Your task to perform on an android device: Open location settings Image 0: 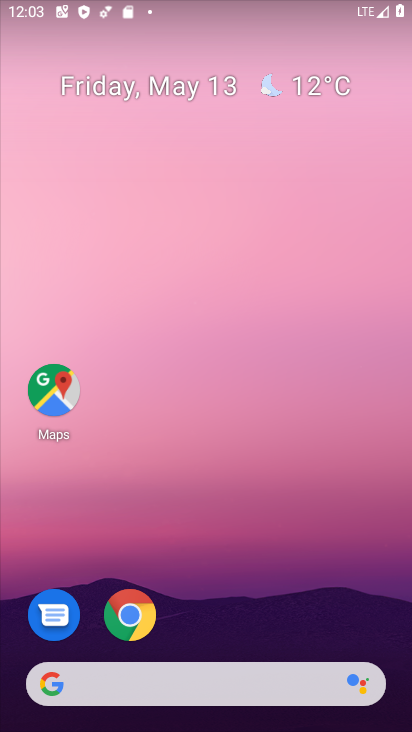
Step 0: drag from (239, 620) to (227, 222)
Your task to perform on an android device: Open location settings Image 1: 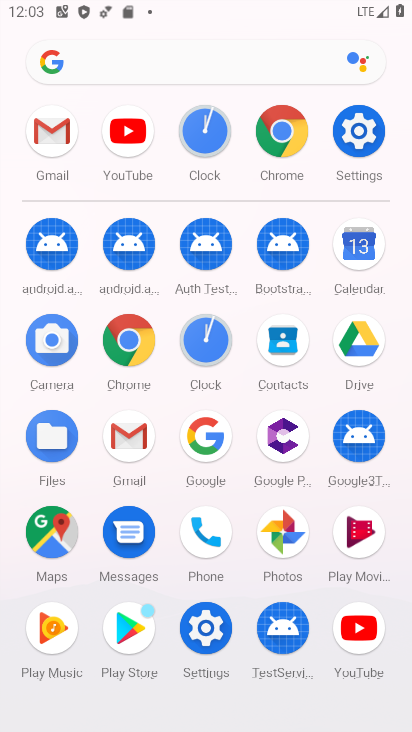
Step 1: click (353, 145)
Your task to perform on an android device: Open location settings Image 2: 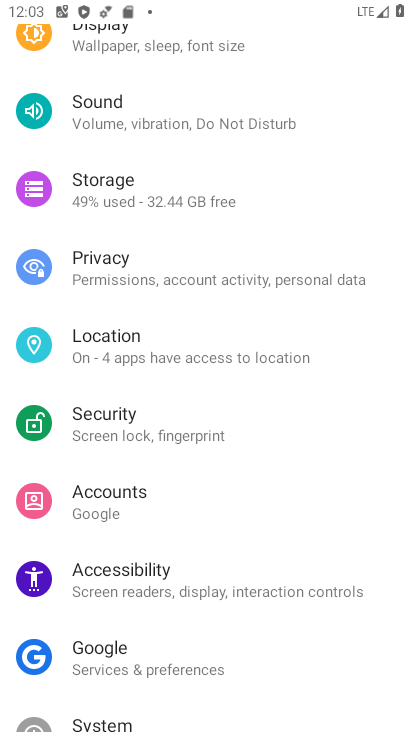
Step 2: click (177, 334)
Your task to perform on an android device: Open location settings Image 3: 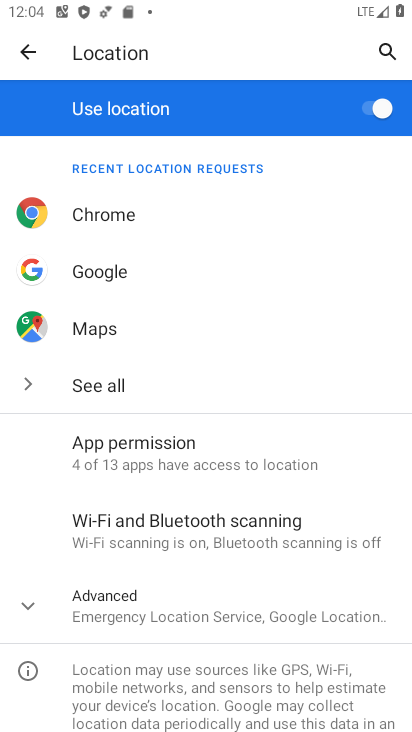
Step 3: drag from (144, 627) to (180, 408)
Your task to perform on an android device: Open location settings Image 4: 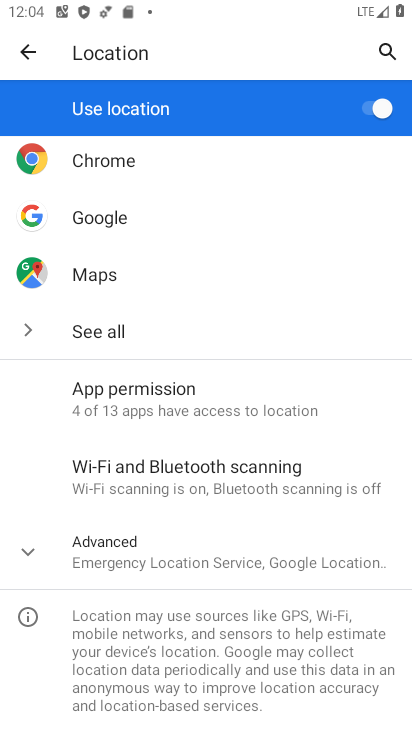
Step 4: drag from (241, 642) to (229, 342)
Your task to perform on an android device: Open location settings Image 5: 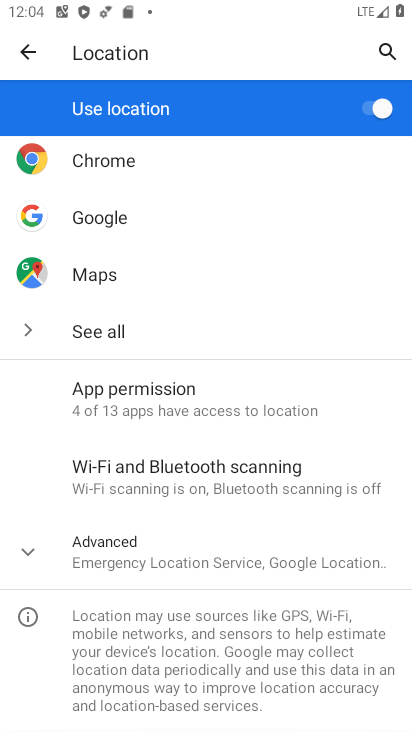
Step 5: click (181, 694)
Your task to perform on an android device: Open location settings Image 6: 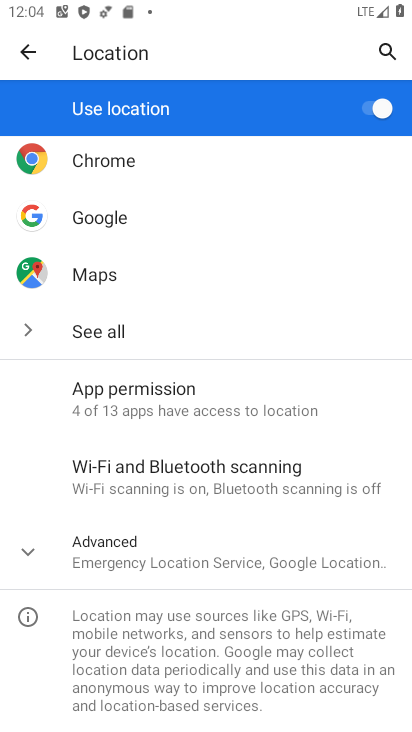
Step 6: task complete